Your task to perform on an android device: check battery use Image 0: 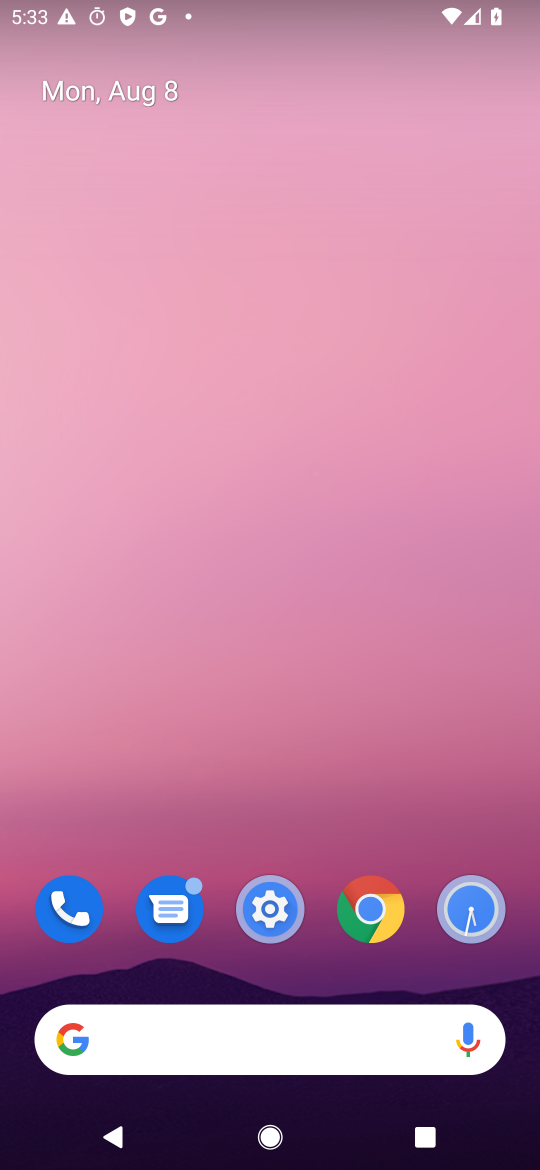
Step 0: click (273, 911)
Your task to perform on an android device: check battery use Image 1: 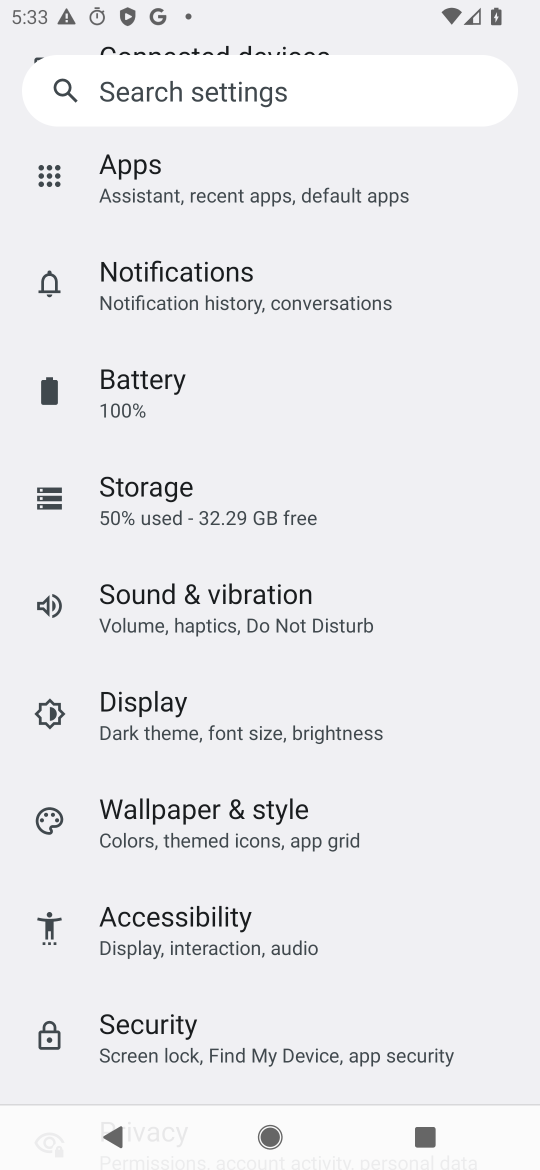
Step 1: click (181, 383)
Your task to perform on an android device: check battery use Image 2: 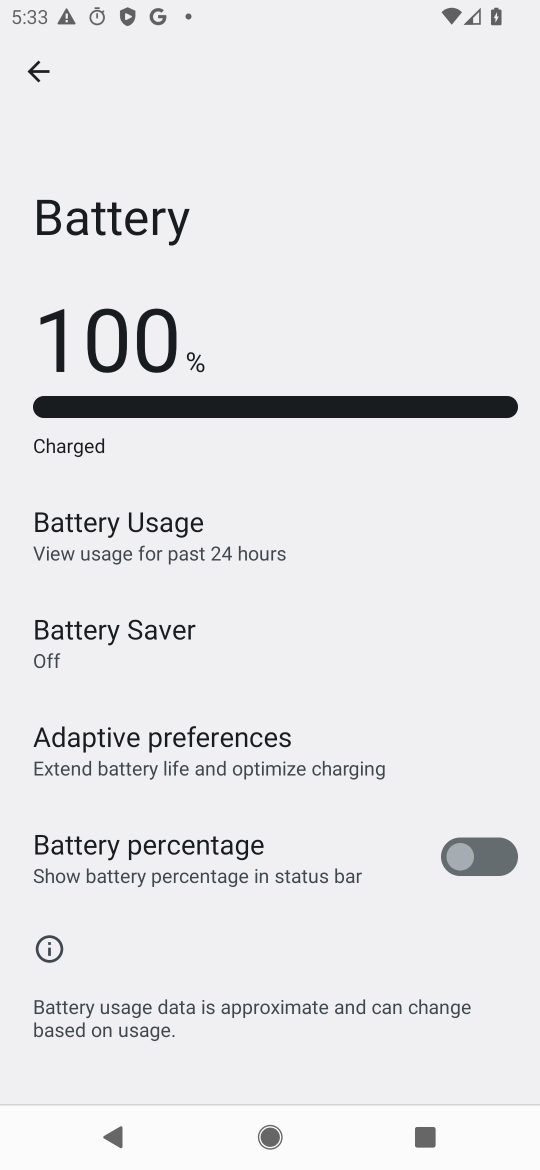
Step 2: click (177, 544)
Your task to perform on an android device: check battery use Image 3: 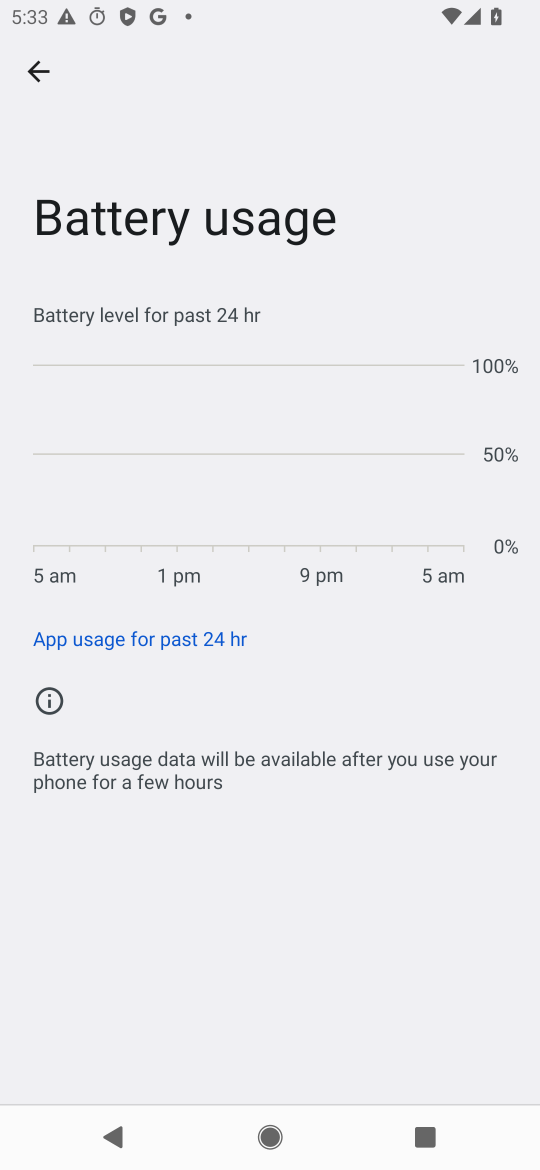
Step 3: task complete